Your task to perform on an android device: check the backup settings in the google photos Image 0: 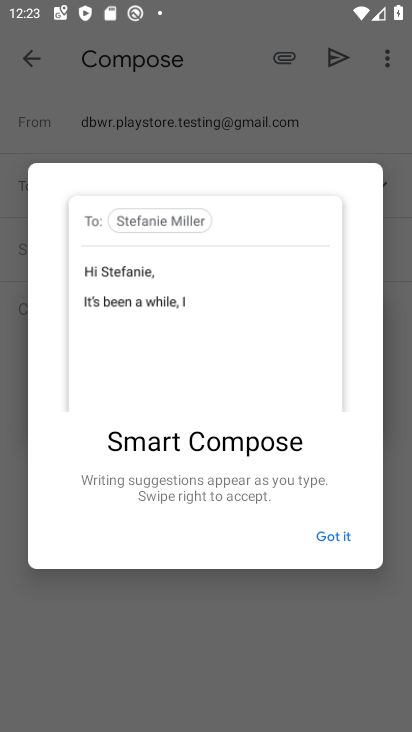
Step 0: press home button
Your task to perform on an android device: check the backup settings in the google photos Image 1: 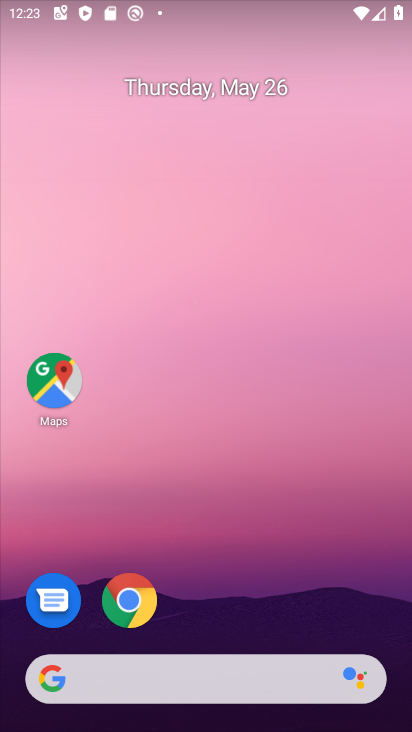
Step 1: drag from (328, 565) to (370, 106)
Your task to perform on an android device: check the backup settings in the google photos Image 2: 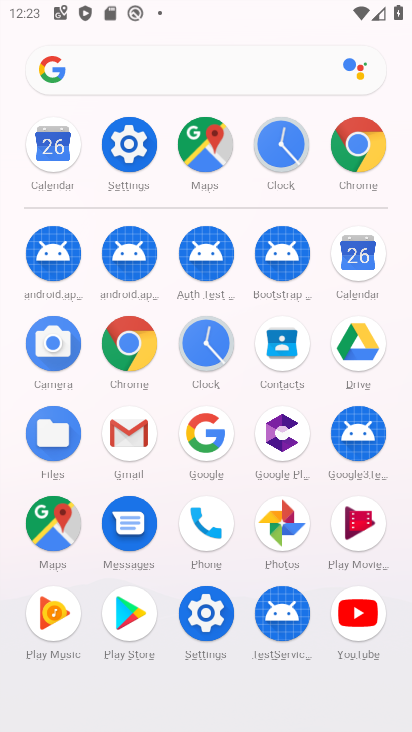
Step 2: click (285, 515)
Your task to perform on an android device: check the backup settings in the google photos Image 3: 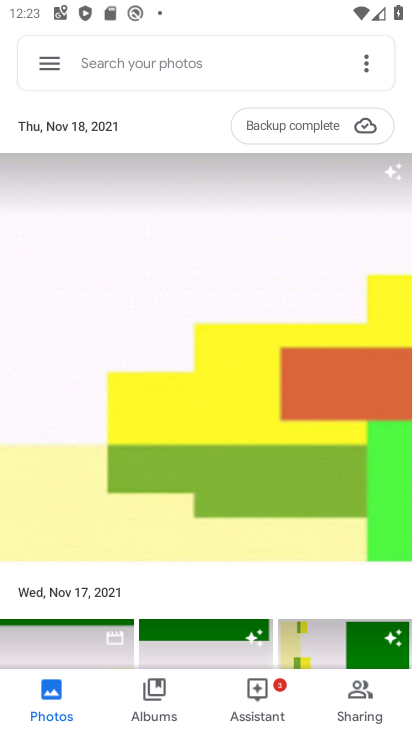
Step 3: click (47, 64)
Your task to perform on an android device: check the backup settings in the google photos Image 4: 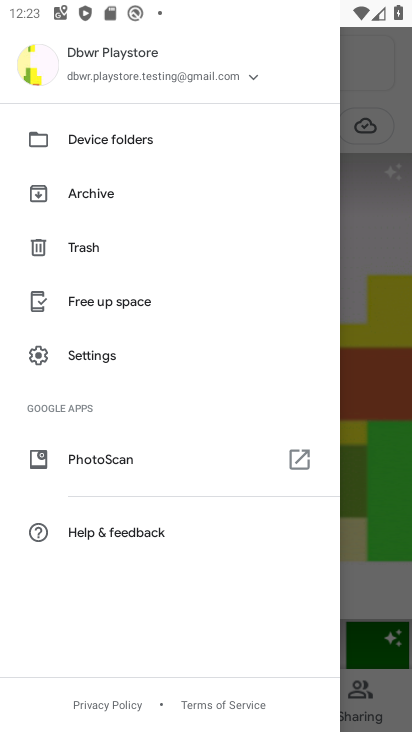
Step 4: click (104, 357)
Your task to perform on an android device: check the backup settings in the google photos Image 5: 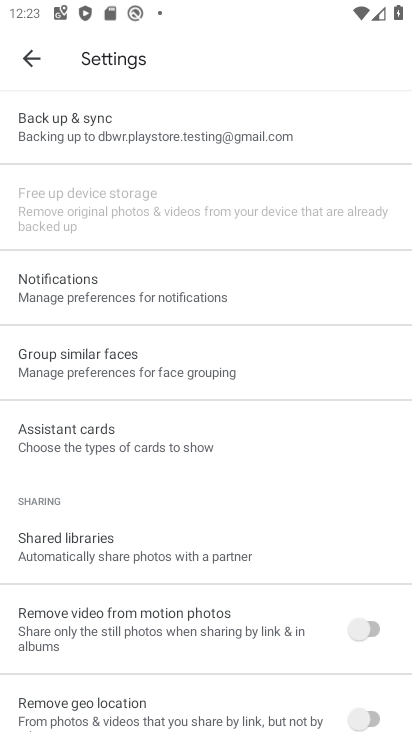
Step 5: click (187, 130)
Your task to perform on an android device: check the backup settings in the google photos Image 6: 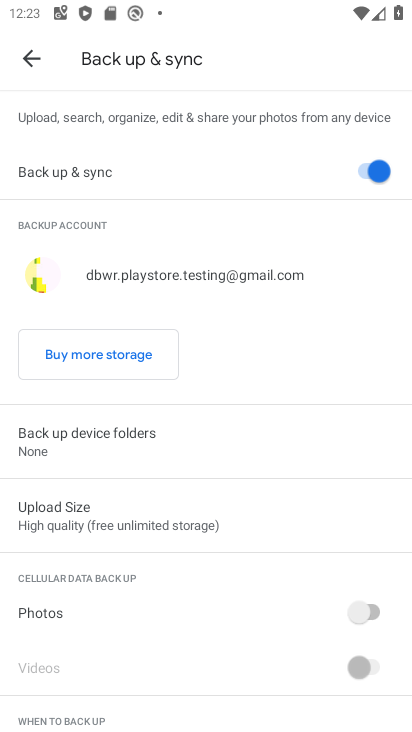
Step 6: task complete